Your task to perform on an android device: Open the calendar app, open the side menu, and click the "Day" option Image 0: 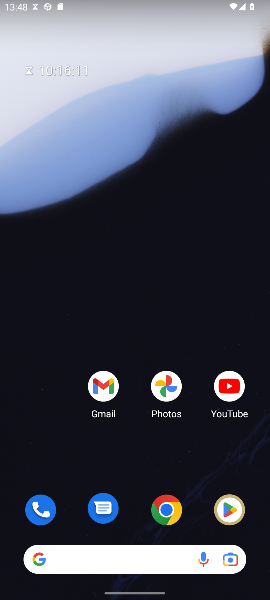
Step 0: press home button
Your task to perform on an android device: Open the calendar app, open the side menu, and click the "Day" option Image 1: 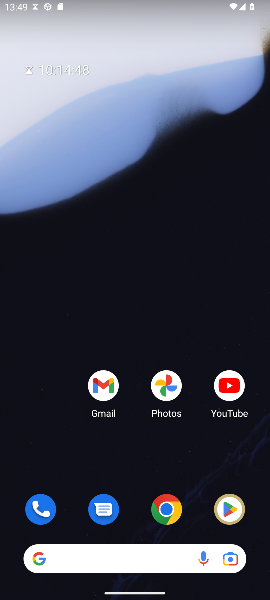
Step 1: drag from (146, 502) to (228, 99)
Your task to perform on an android device: Open the calendar app, open the side menu, and click the "Day" option Image 2: 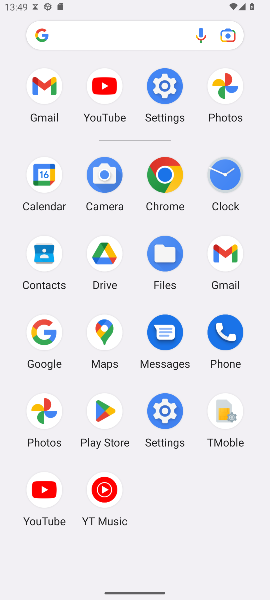
Step 2: click (46, 180)
Your task to perform on an android device: Open the calendar app, open the side menu, and click the "Day" option Image 3: 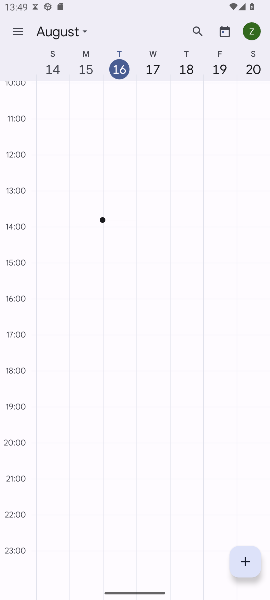
Step 3: click (16, 32)
Your task to perform on an android device: Open the calendar app, open the side menu, and click the "Day" option Image 4: 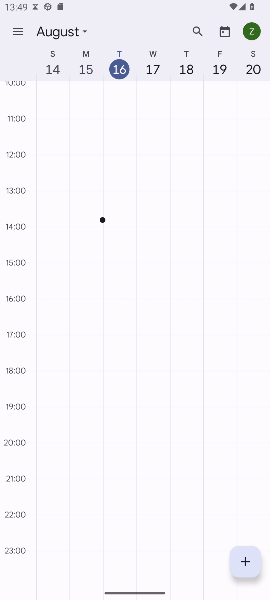
Step 4: click (16, 32)
Your task to perform on an android device: Open the calendar app, open the side menu, and click the "Day" option Image 5: 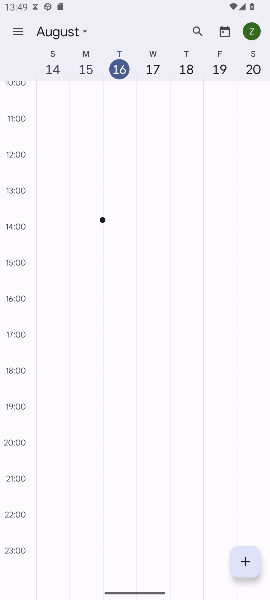
Step 5: click (13, 31)
Your task to perform on an android device: Open the calendar app, open the side menu, and click the "Day" option Image 6: 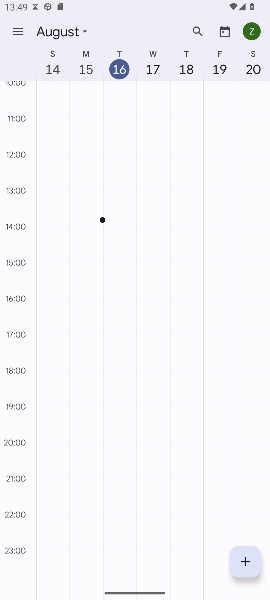
Step 6: click (15, 33)
Your task to perform on an android device: Open the calendar app, open the side menu, and click the "Day" option Image 7: 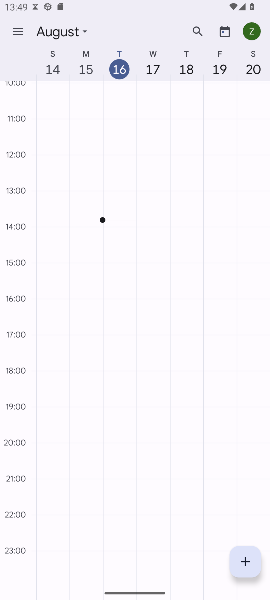
Step 7: click (15, 33)
Your task to perform on an android device: Open the calendar app, open the side menu, and click the "Day" option Image 8: 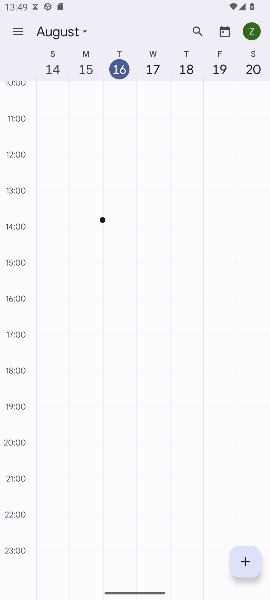
Step 8: task complete